Your task to perform on an android device: turn on bluetooth scan Image 0: 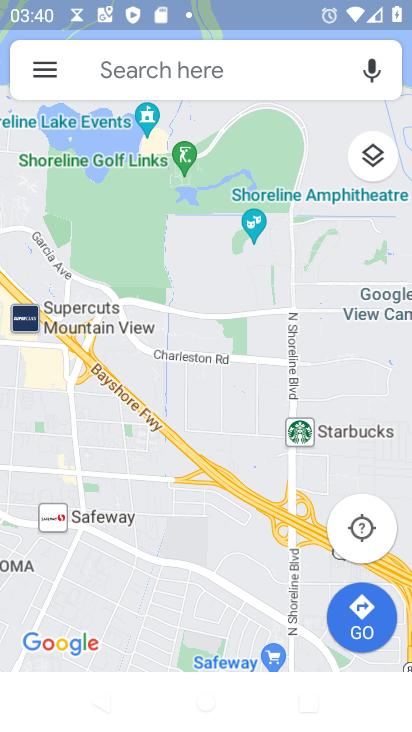
Step 0: press back button
Your task to perform on an android device: turn on bluetooth scan Image 1: 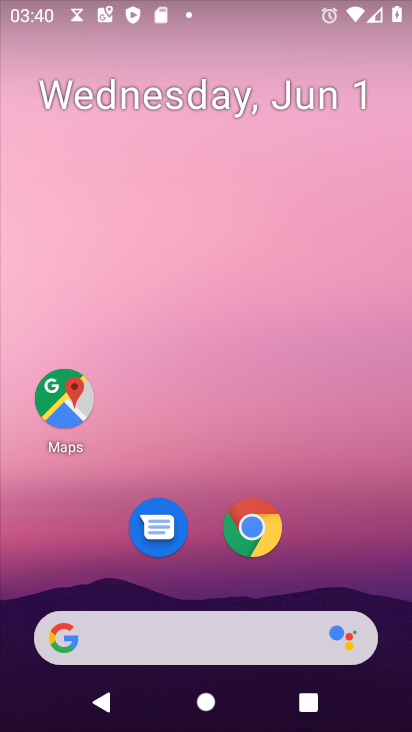
Step 1: drag from (326, 558) to (262, 164)
Your task to perform on an android device: turn on bluetooth scan Image 2: 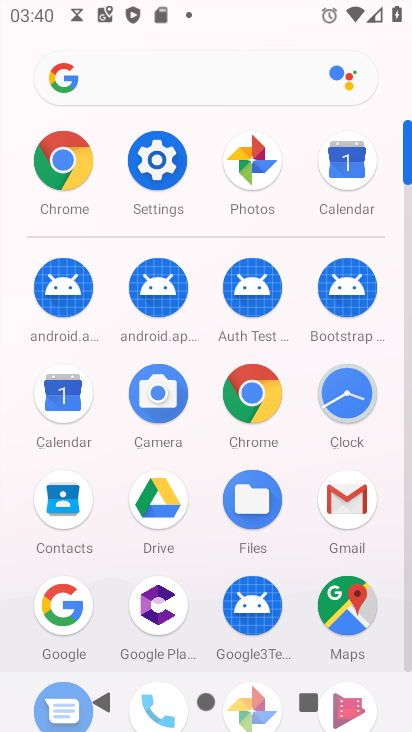
Step 2: click (158, 157)
Your task to perform on an android device: turn on bluetooth scan Image 3: 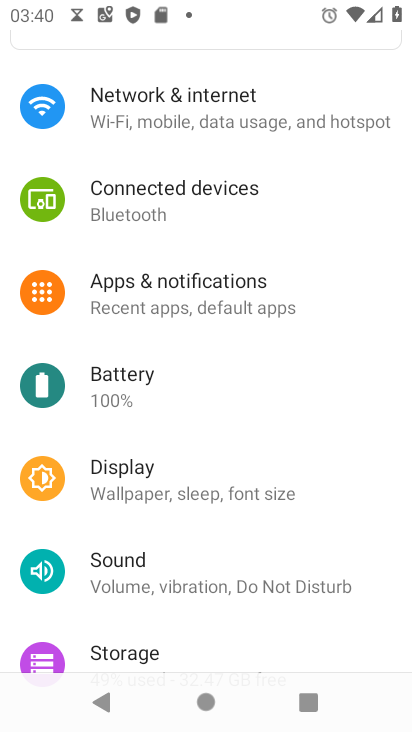
Step 3: drag from (192, 564) to (224, 486)
Your task to perform on an android device: turn on bluetooth scan Image 4: 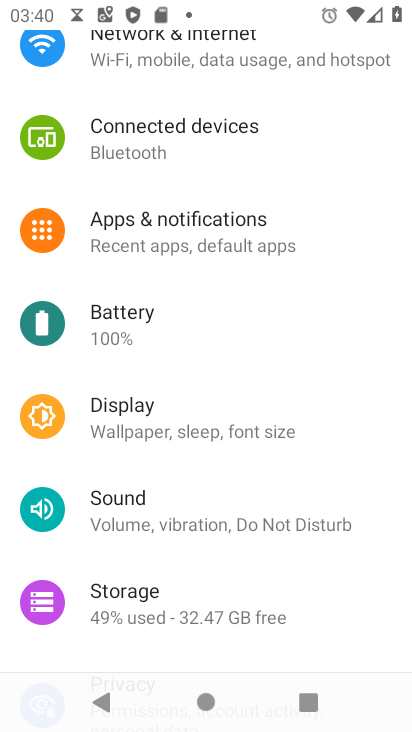
Step 4: drag from (186, 571) to (254, 471)
Your task to perform on an android device: turn on bluetooth scan Image 5: 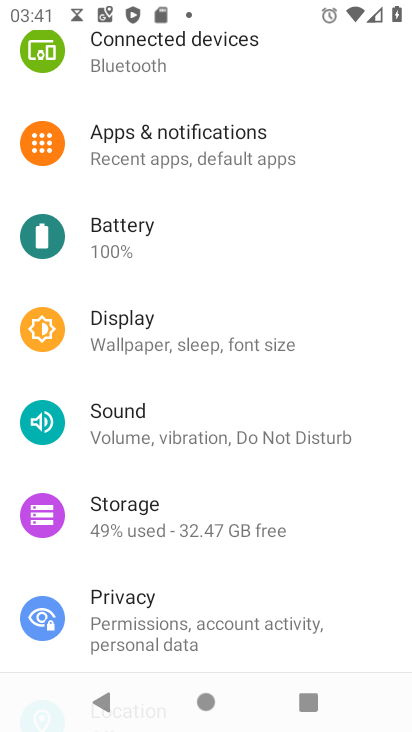
Step 5: drag from (192, 592) to (266, 475)
Your task to perform on an android device: turn on bluetooth scan Image 6: 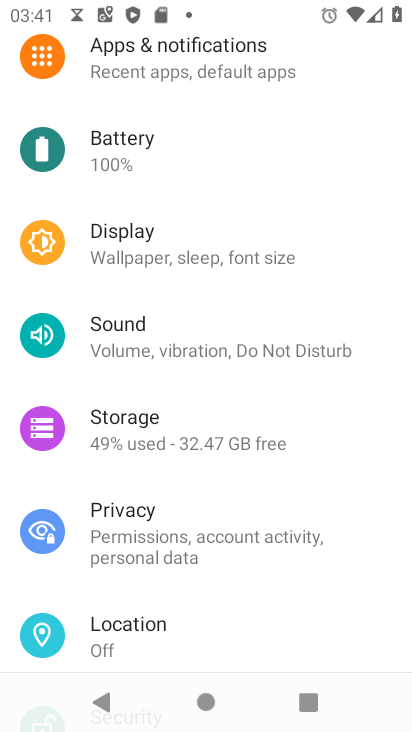
Step 6: drag from (184, 586) to (246, 457)
Your task to perform on an android device: turn on bluetooth scan Image 7: 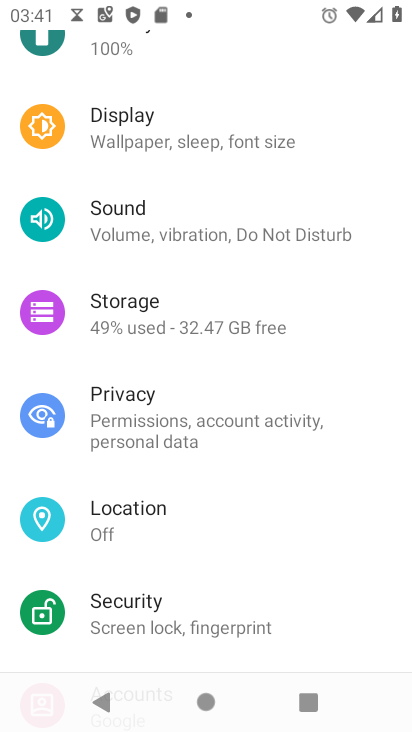
Step 7: drag from (216, 558) to (246, 474)
Your task to perform on an android device: turn on bluetooth scan Image 8: 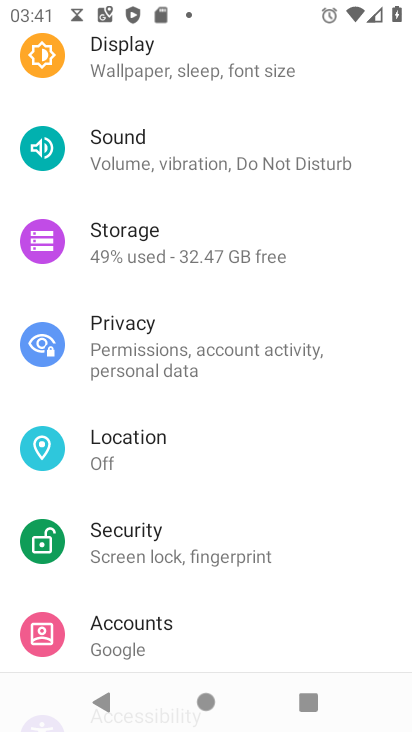
Step 8: click (193, 446)
Your task to perform on an android device: turn on bluetooth scan Image 9: 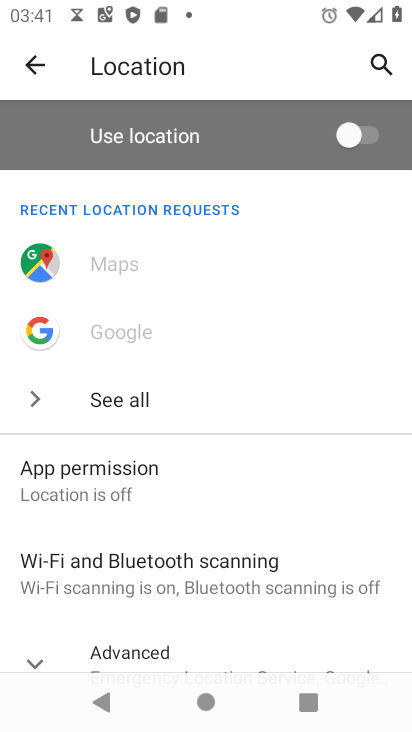
Step 9: click (207, 569)
Your task to perform on an android device: turn on bluetooth scan Image 10: 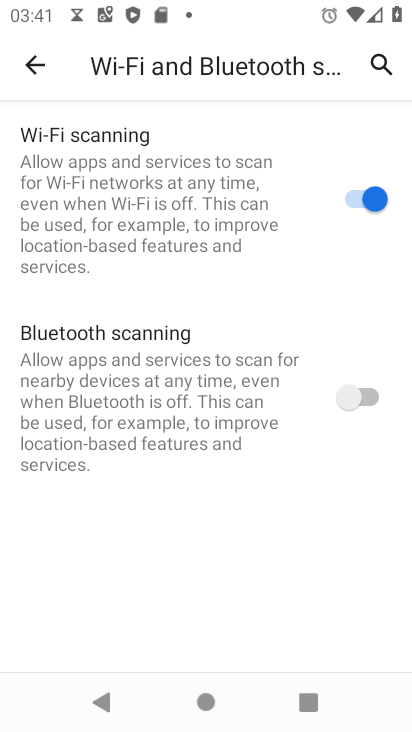
Step 10: click (355, 392)
Your task to perform on an android device: turn on bluetooth scan Image 11: 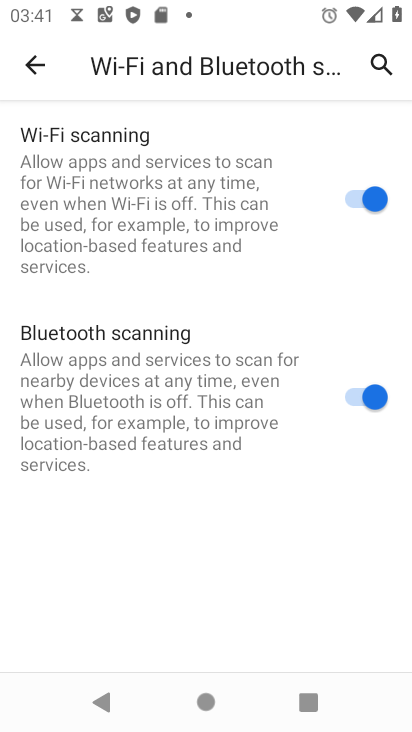
Step 11: task complete